Your task to perform on an android device: Show the shopping cart on amazon.com. Add "sony triple a" to the cart on amazon.com, then select checkout. Image 0: 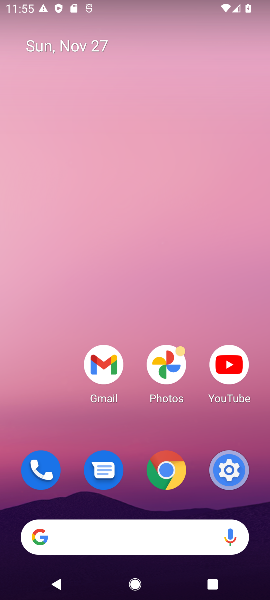
Step 0: click (151, 534)
Your task to perform on an android device: Show the shopping cart on amazon.com. Add "sony triple a" to the cart on amazon.com, then select checkout. Image 1: 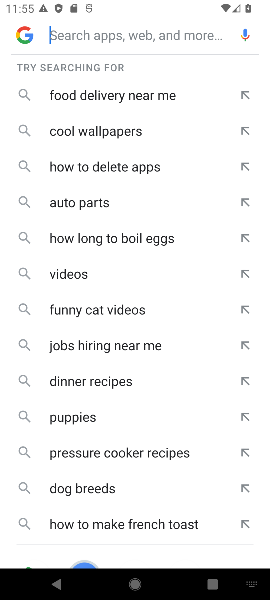
Step 1: type "amazon"
Your task to perform on an android device: Show the shopping cart on amazon.com. Add "sony triple a" to the cart on amazon.com, then select checkout. Image 2: 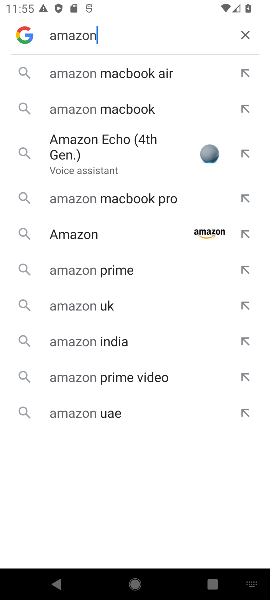
Step 2: click (104, 230)
Your task to perform on an android device: Show the shopping cart on amazon.com. Add "sony triple a" to the cart on amazon.com, then select checkout. Image 3: 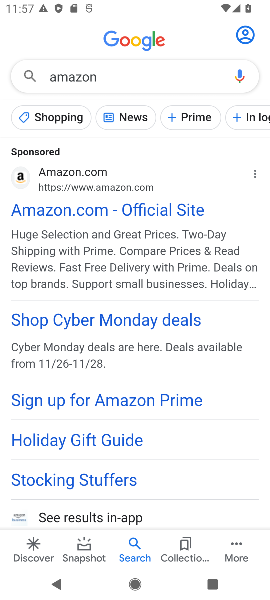
Step 3: click (72, 216)
Your task to perform on an android device: Show the shopping cart on amazon.com. Add "sony triple a" to the cart on amazon.com, then select checkout. Image 4: 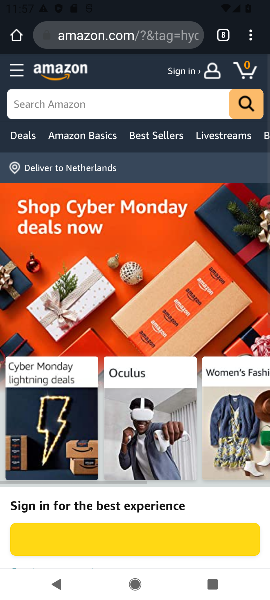
Step 4: task complete